Your task to perform on an android device: refresh tabs in the chrome app Image 0: 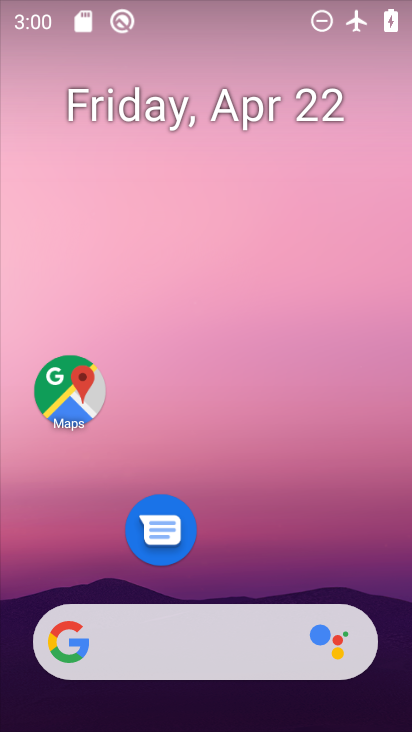
Step 0: drag from (260, 548) to (226, 62)
Your task to perform on an android device: refresh tabs in the chrome app Image 1: 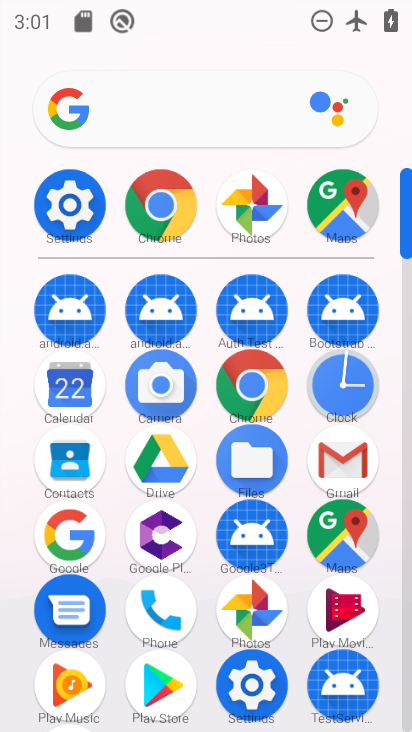
Step 1: click (165, 211)
Your task to perform on an android device: refresh tabs in the chrome app Image 2: 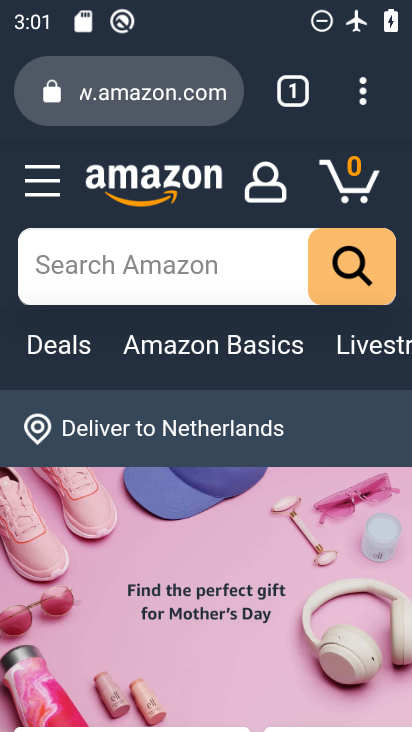
Step 2: click (358, 104)
Your task to perform on an android device: refresh tabs in the chrome app Image 3: 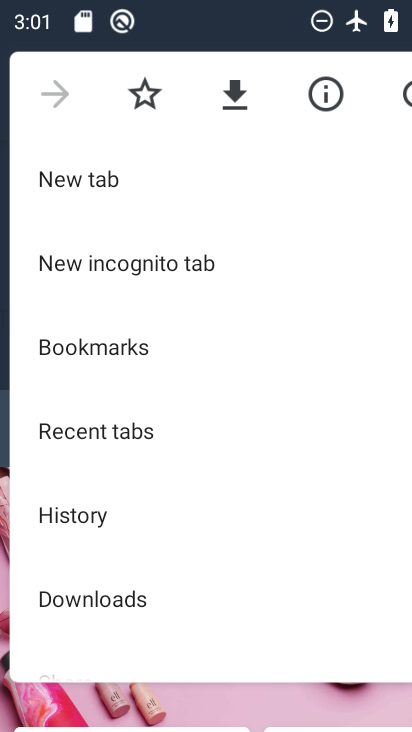
Step 3: click (403, 93)
Your task to perform on an android device: refresh tabs in the chrome app Image 4: 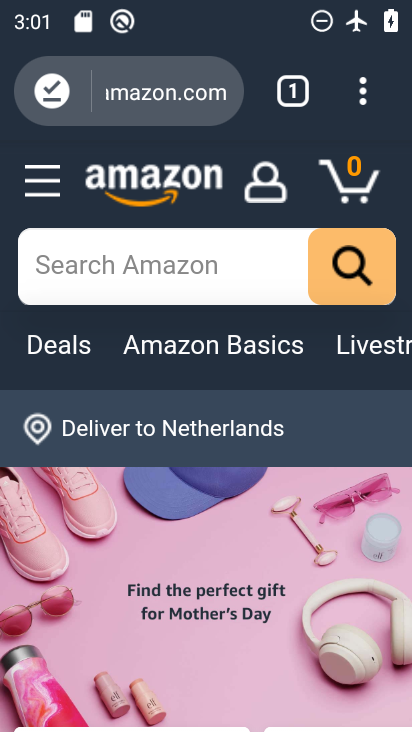
Step 4: task complete